Your task to perform on an android device: open a new tab in the chrome app Image 0: 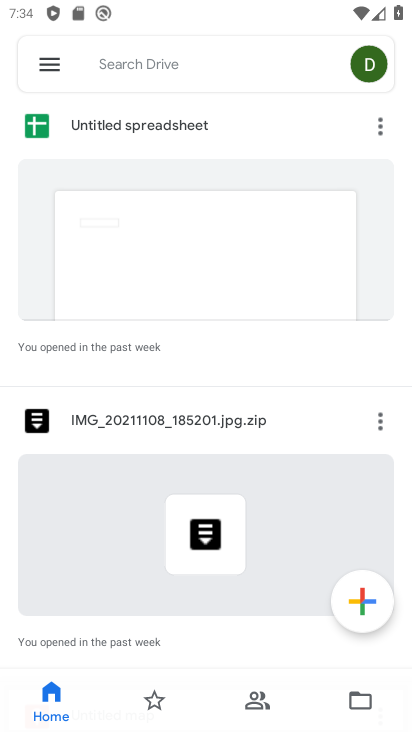
Step 0: press home button
Your task to perform on an android device: open a new tab in the chrome app Image 1: 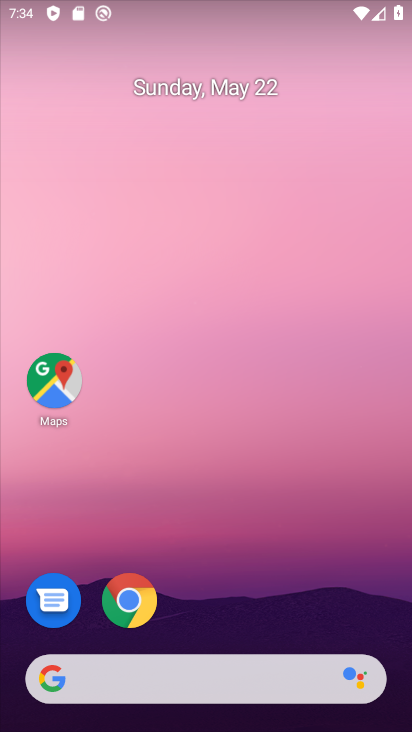
Step 1: click (134, 607)
Your task to perform on an android device: open a new tab in the chrome app Image 2: 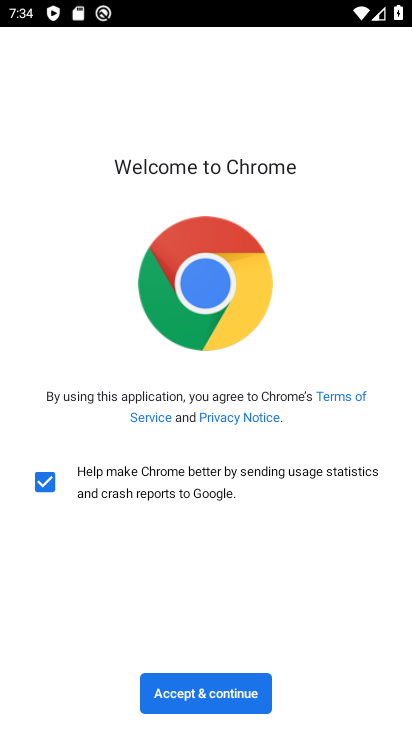
Step 2: click (211, 701)
Your task to perform on an android device: open a new tab in the chrome app Image 3: 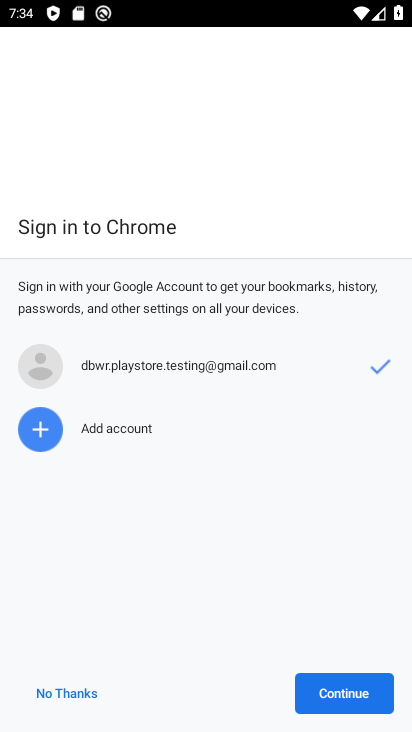
Step 3: click (328, 689)
Your task to perform on an android device: open a new tab in the chrome app Image 4: 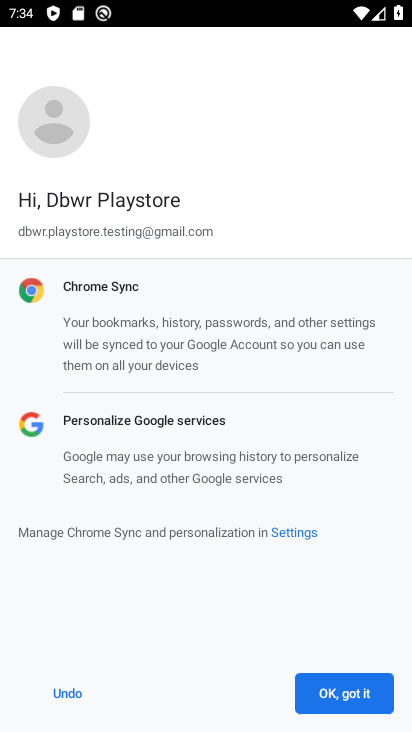
Step 4: click (324, 691)
Your task to perform on an android device: open a new tab in the chrome app Image 5: 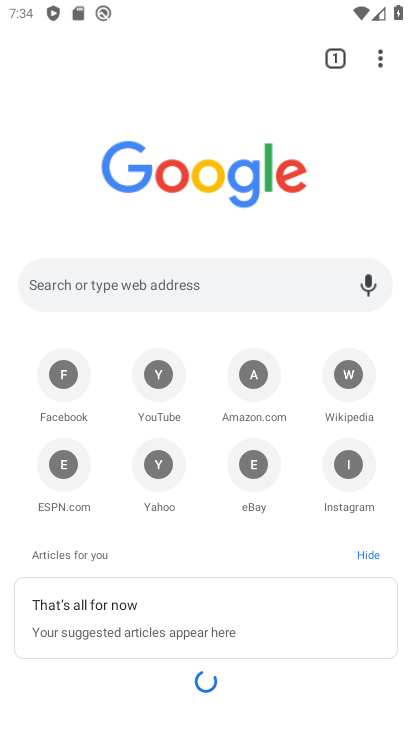
Step 5: click (379, 65)
Your task to perform on an android device: open a new tab in the chrome app Image 6: 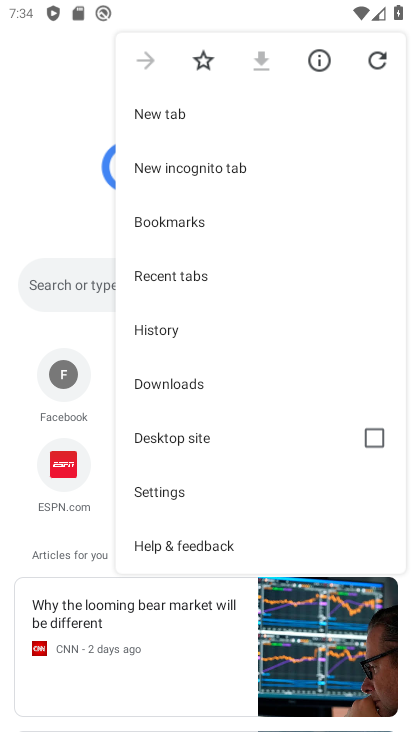
Step 6: click (164, 113)
Your task to perform on an android device: open a new tab in the chrome app Image 7: 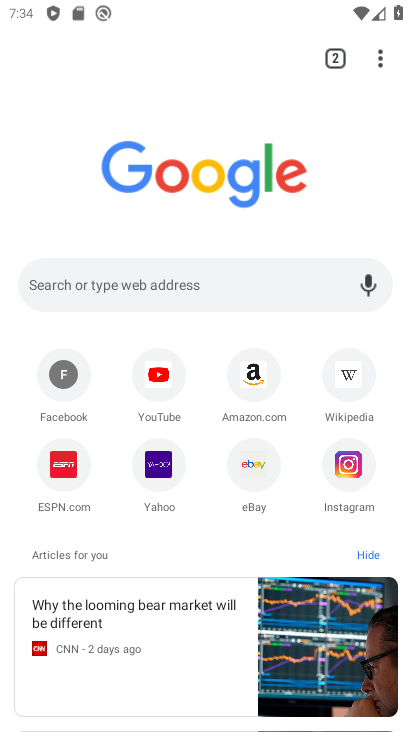
Step 7: task complete